Your task to perform on an android device: Open Google Maps Image 0: 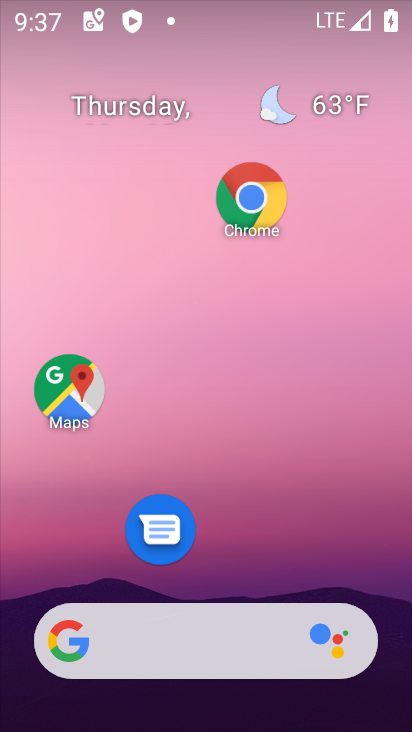
Step 0: drag from (267, 577) to (347, 102)
Your task to perform on an android device: Open Google Maps Image 1: 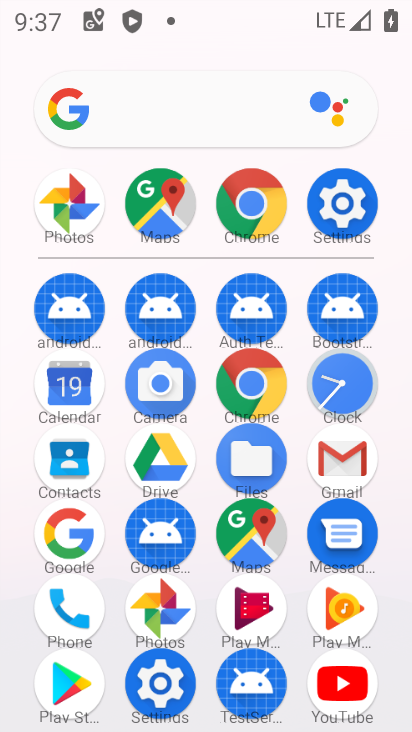
Step 1: drag from (350, 474) to (366, 324)
Your task to perform on an android device: Open Google Maps Image 2: 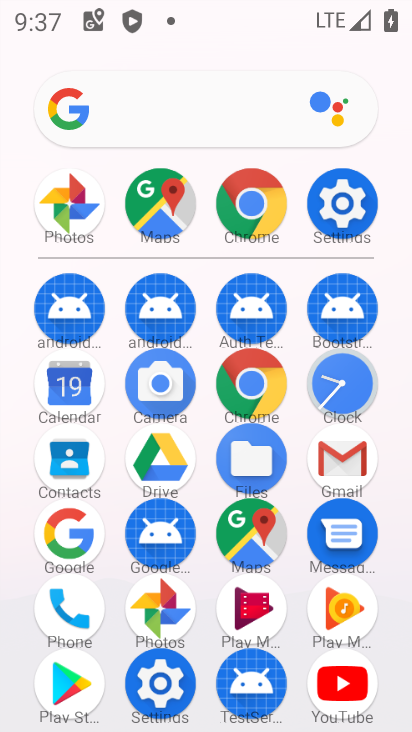
Step 2: drag from (162, 473) to (178, 368)
Your task to perform on an android device: Open Google Maps Image 3: 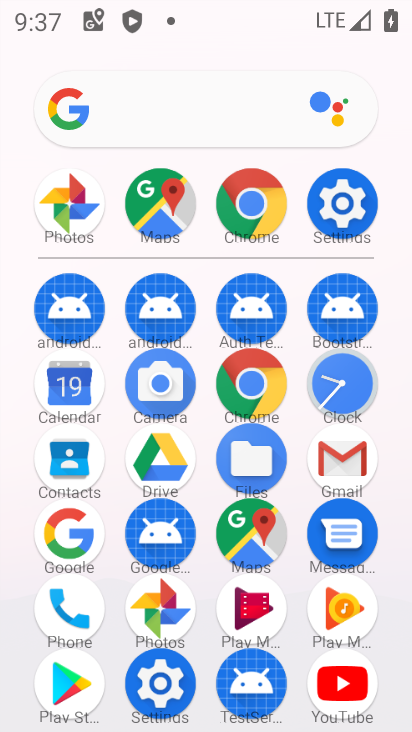
Step 3: click (271, 550)
Your task to perform on an android device: Open Google Maps Image 4: 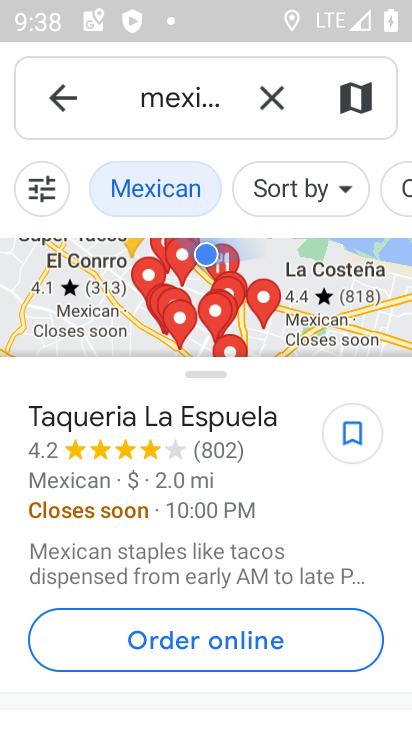
Step 4: task complete